Your task to perform on an android device: turn on priority inbox in the gmail app Image 0: 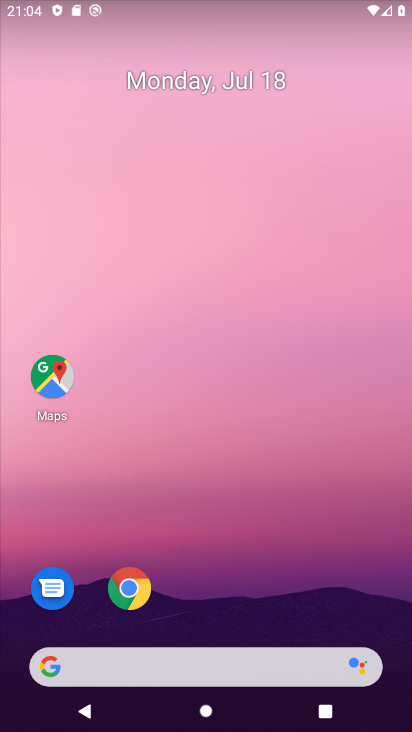
Step 0: press home button
Your task to perform on an android device: turn on priority inbox in the gmail app Image 1: 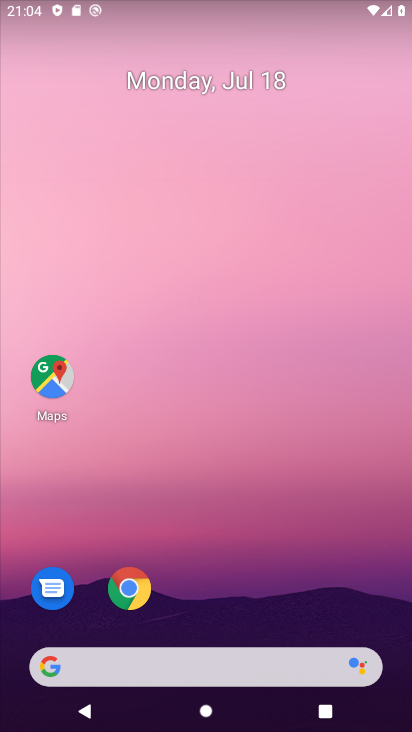
Step 1: drag from (164, 661) to (270, 67)
Your task to perform on an android device: turn on priority inbox in the gmail app Image 2: 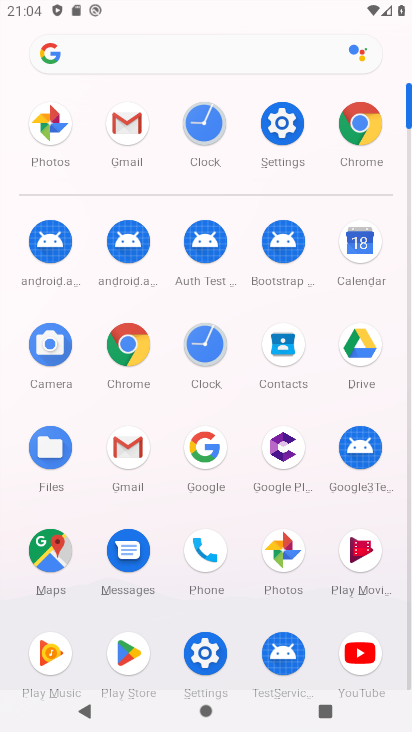
Step 2: click (127, 126)
Your task to perform on an android device: turn on priority inbox in the gmail app Image 3: 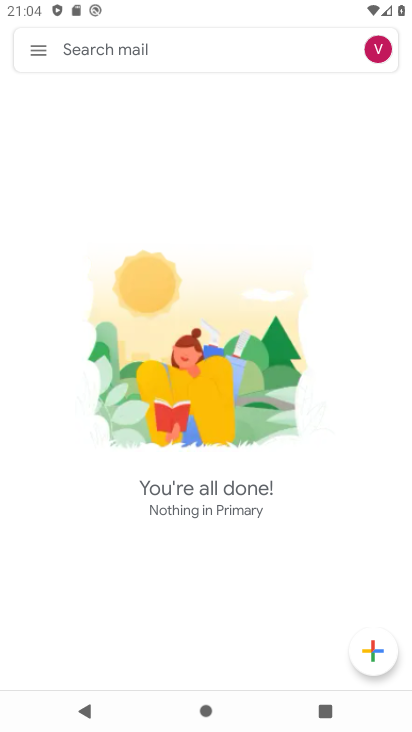
Step 3: click (42, 51)
Your task to perform on an android device: turn on priority inbox in the gmail app Image 4: 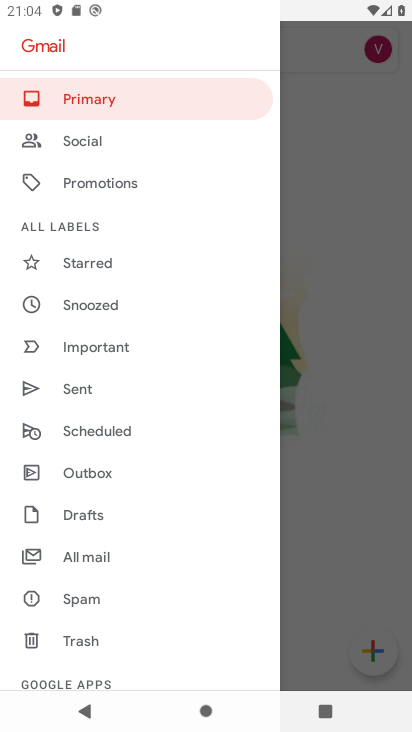
Step 4: drag from (162, 604) to (257, 66)
Your task to perform on an android device: turn on priority inbox in the gmail app Image 5: 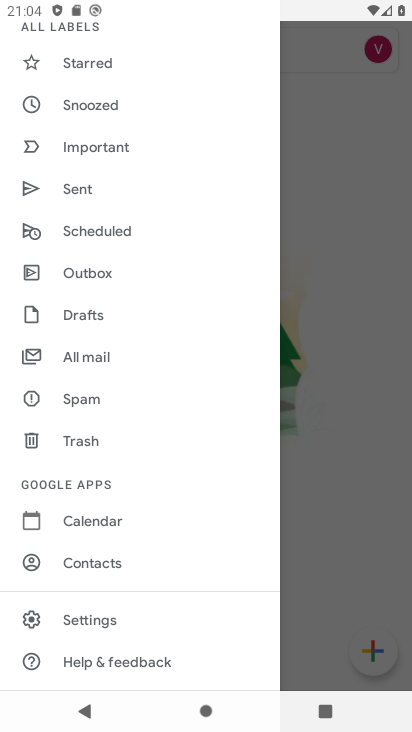
Step 5: click (105, 619)
Your task to perform on an android device: turn on priority inbox in the gmail app Image 6: 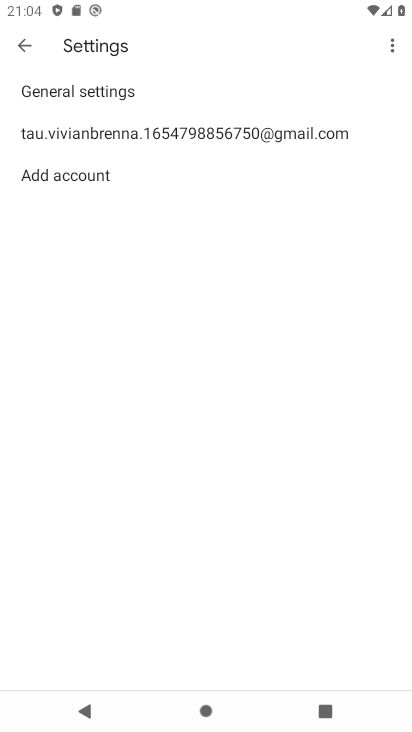
Step 6: click (257, 134)
Your task to perform on an android device: turn on priority inbox in the gmail app Image 7: 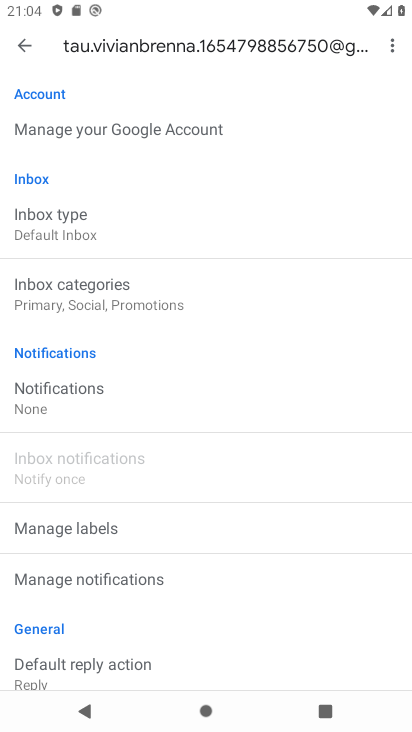
Step 7: click (62, 218)
Your task to perform on an android device: turn on priority inbox in the gmail app Image 8: 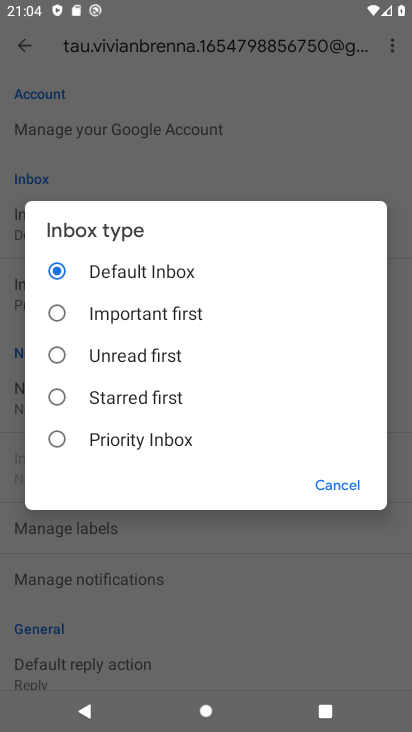
Step 8: click (50, 437)
Your task to perform on an android device: turn on priority inbox in the gmail app Image 9: 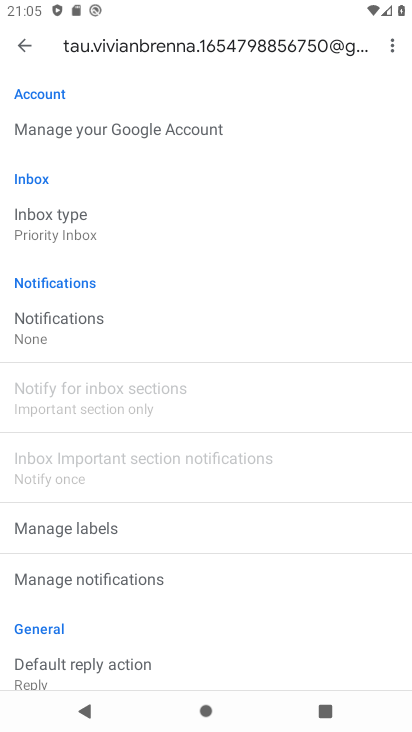
Step 9: task complete